Your task to perform on an android device: delete a single message in the gmail app Image 0: 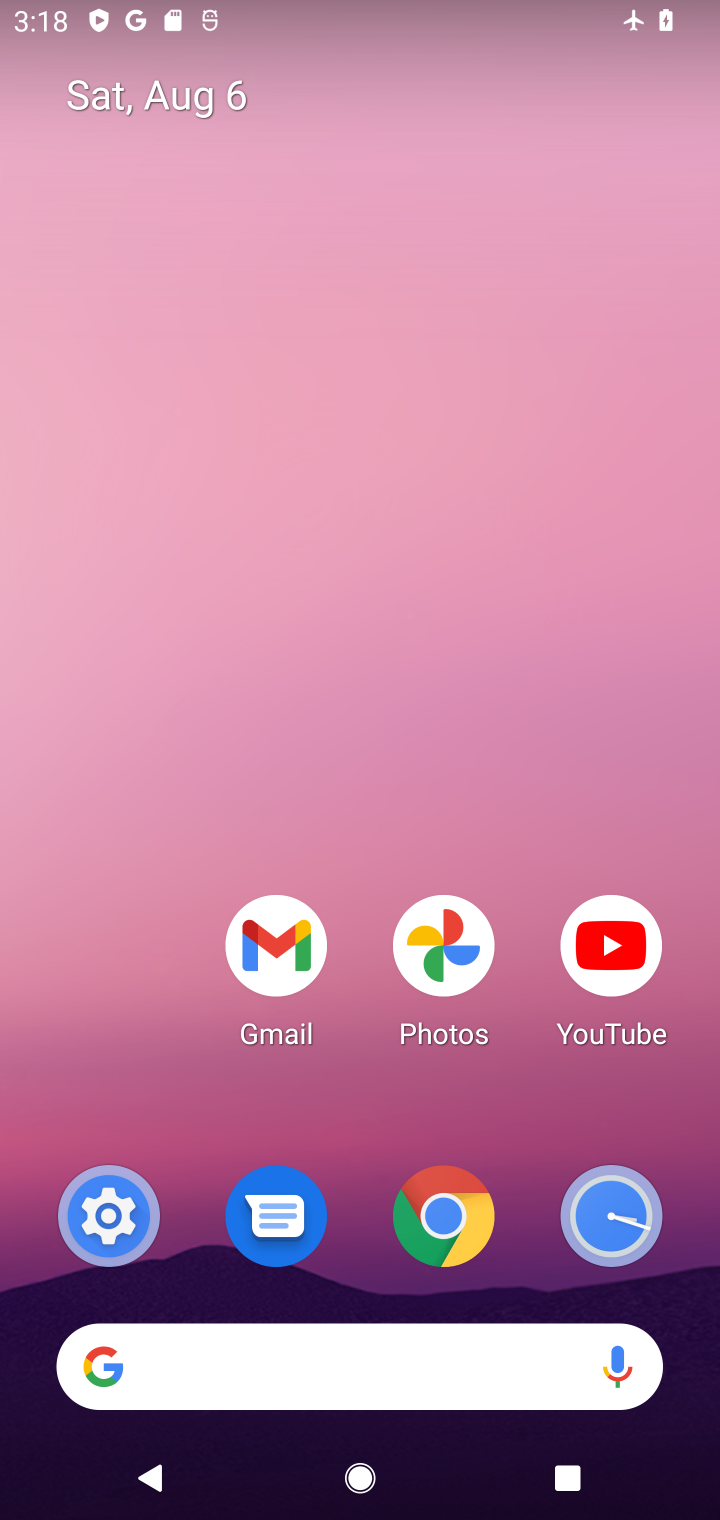
Step 0: drag from (543, 1164) to (507, 311)
Your task to perform on an android device: delete a single message in the gmail app Image 1: 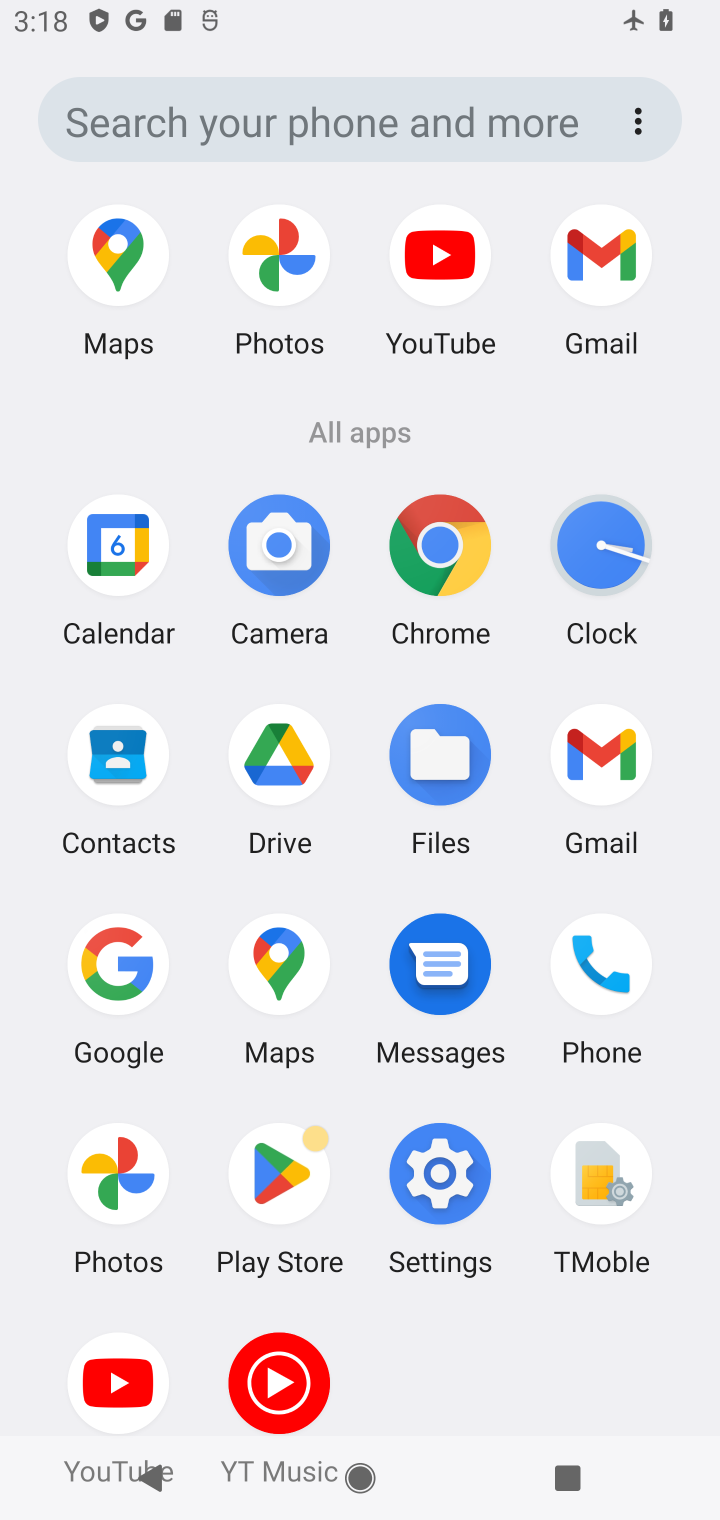
Step 1: click (591, 762)
Your task to perform on an android device: delete a single message in the gmail app Image 2: 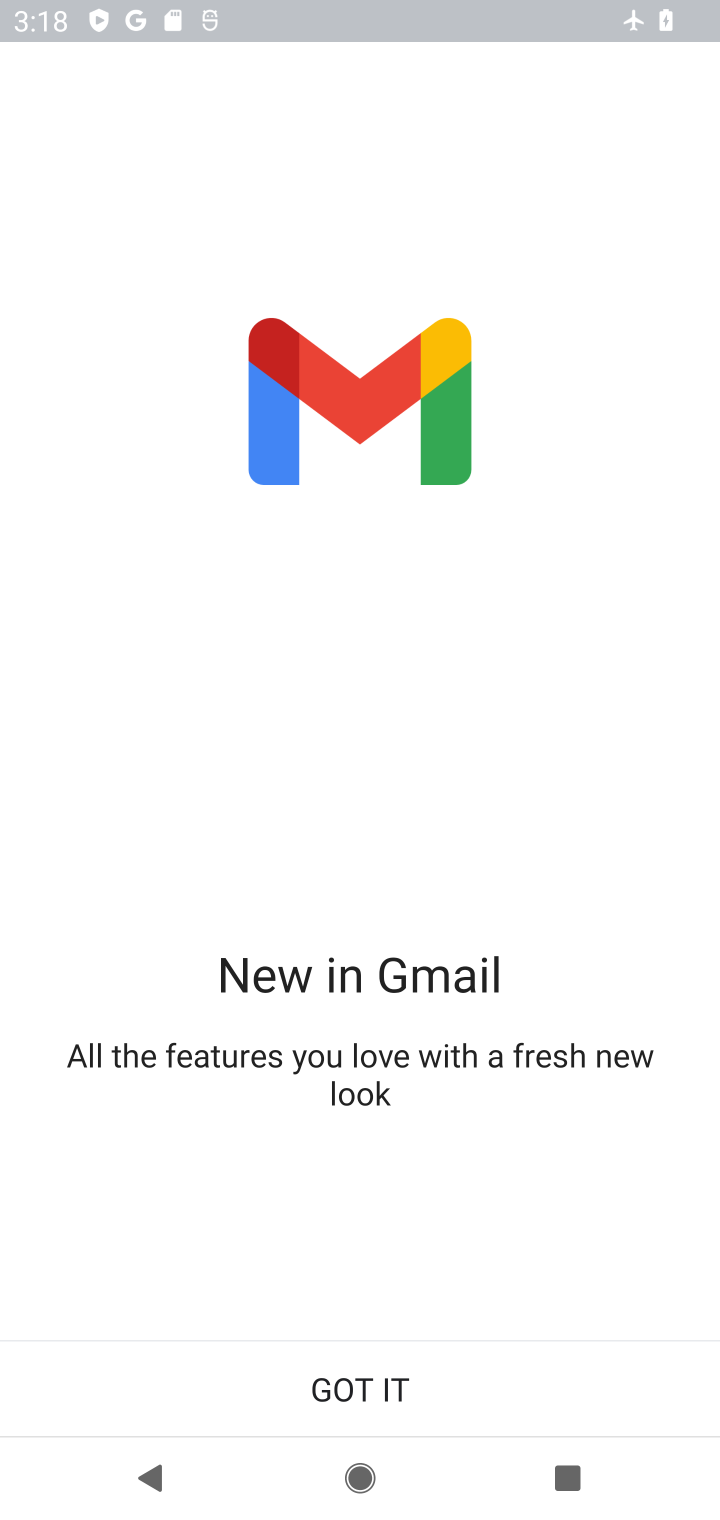
Step 2: click (348, 1415)
Your task to perform on an android device: delete a single message in the gmail app Image 3: 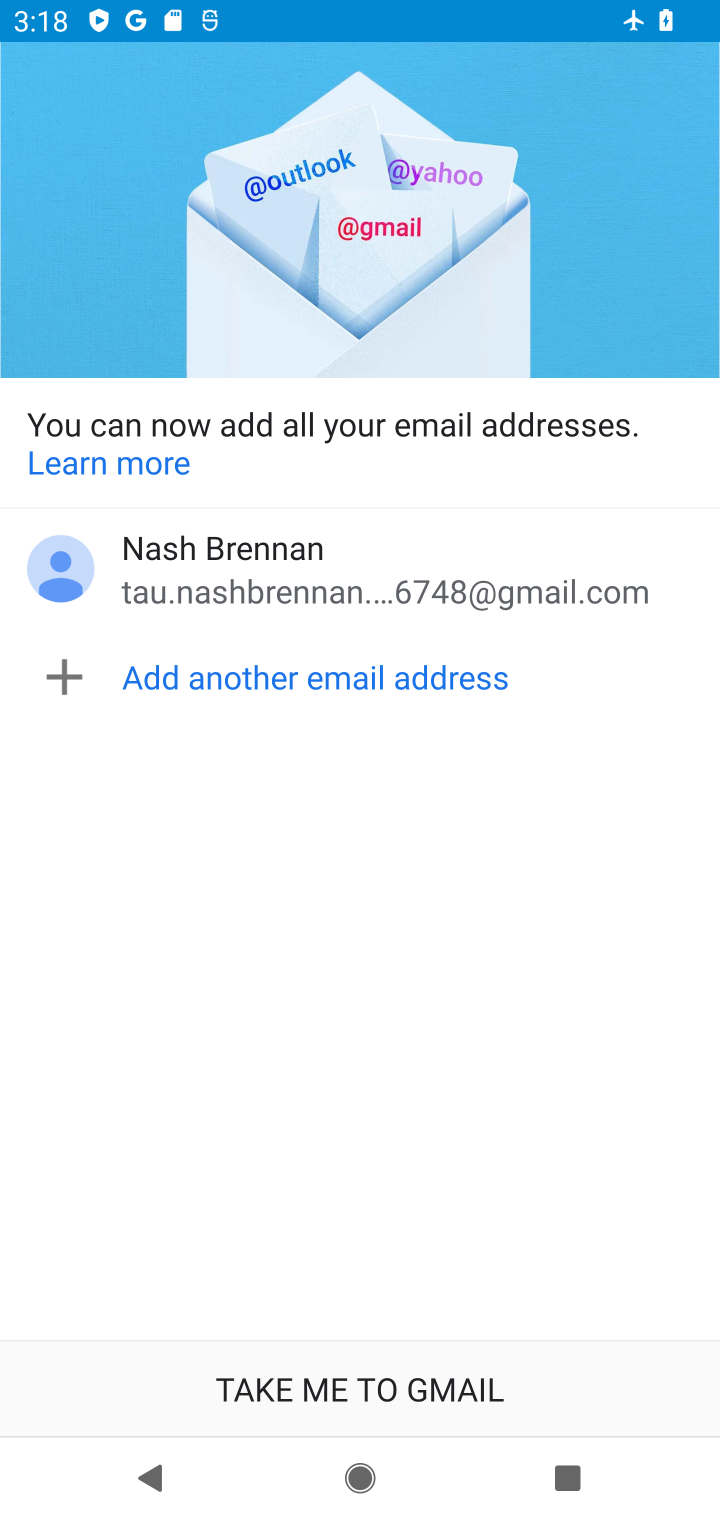
Step 3: click (420, 1409)
Your task to perform on an android device: delete a single message in the gmail app Image 4: 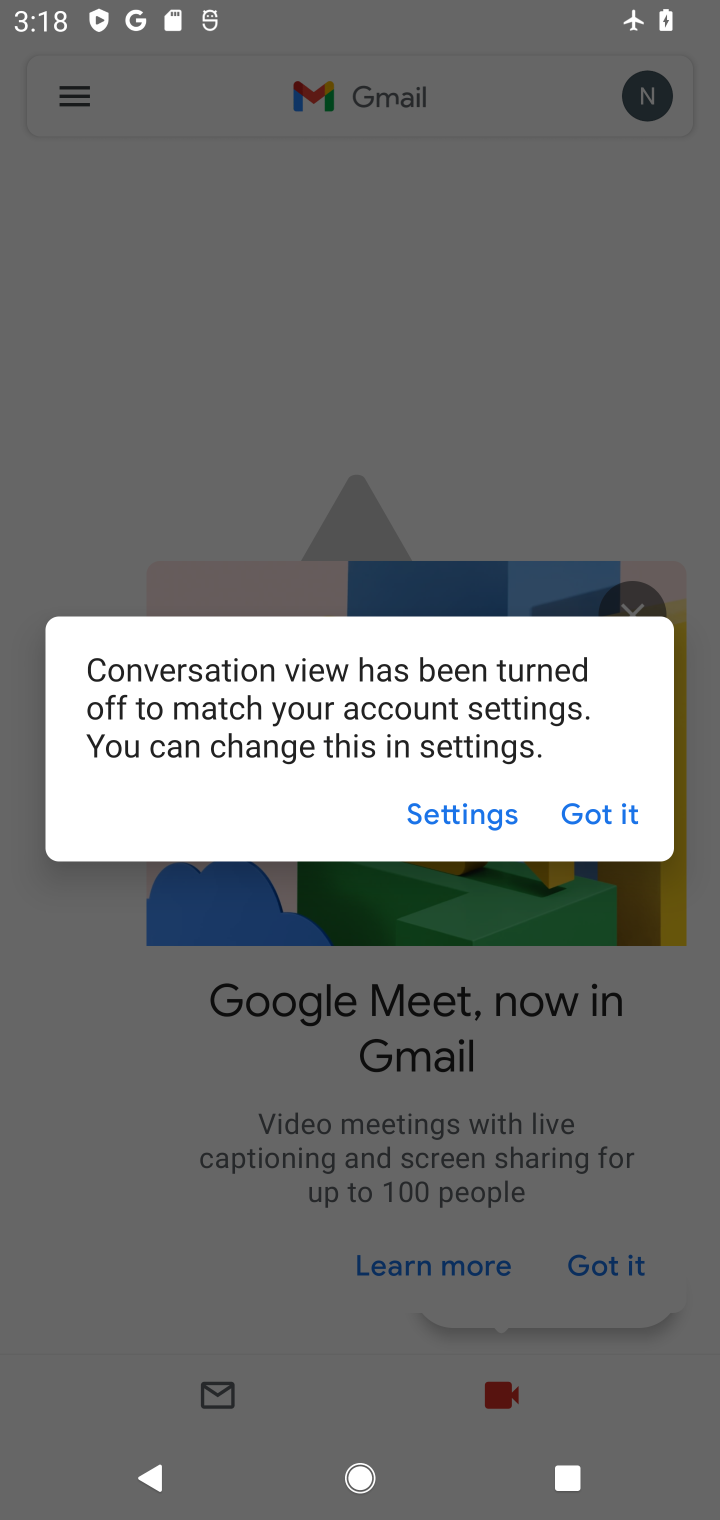
Step 4: click (560, 838)
Your task to perform on an android device: delete a single message in the gmail app Image 5: 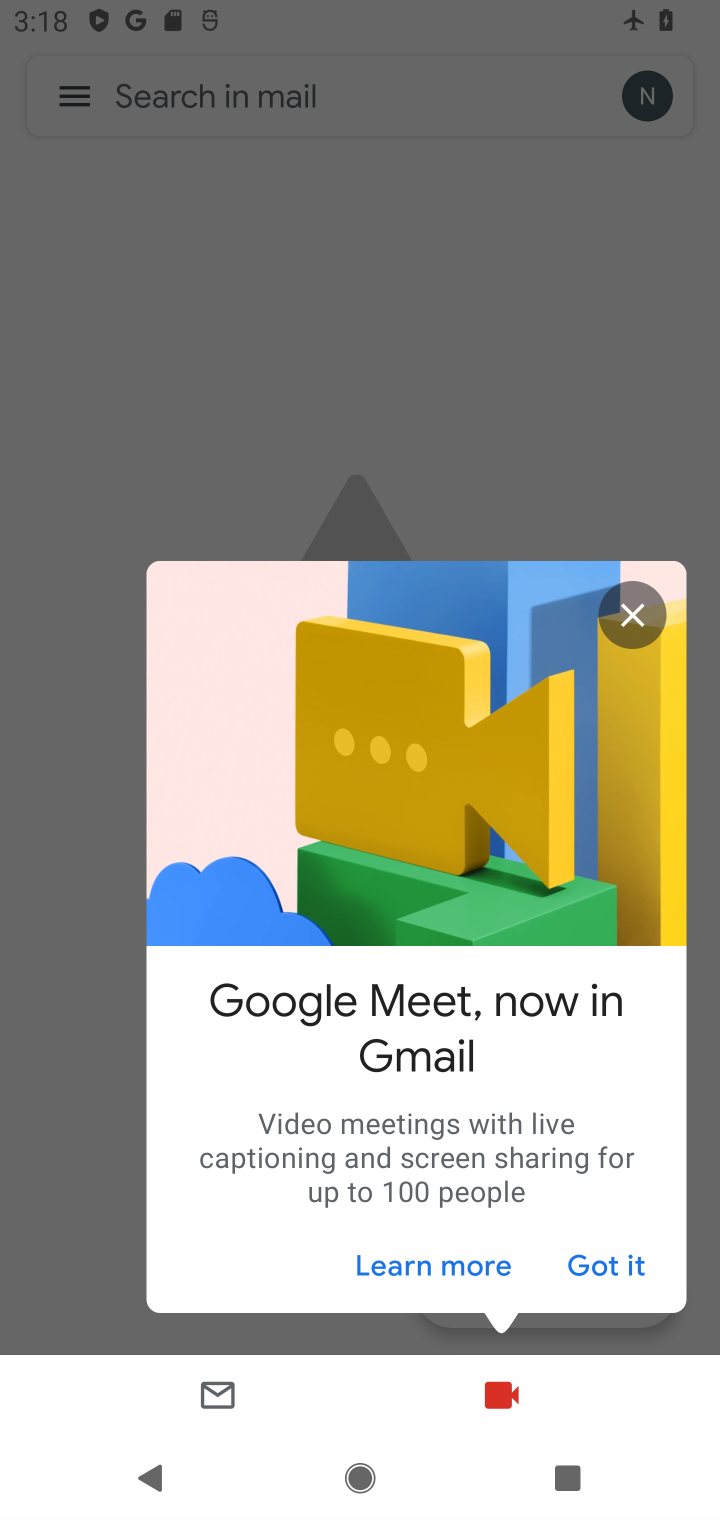
Step 5: click (623, 1265)
Your task to perform on an android device: delete a single message in the gmail app Image 6: 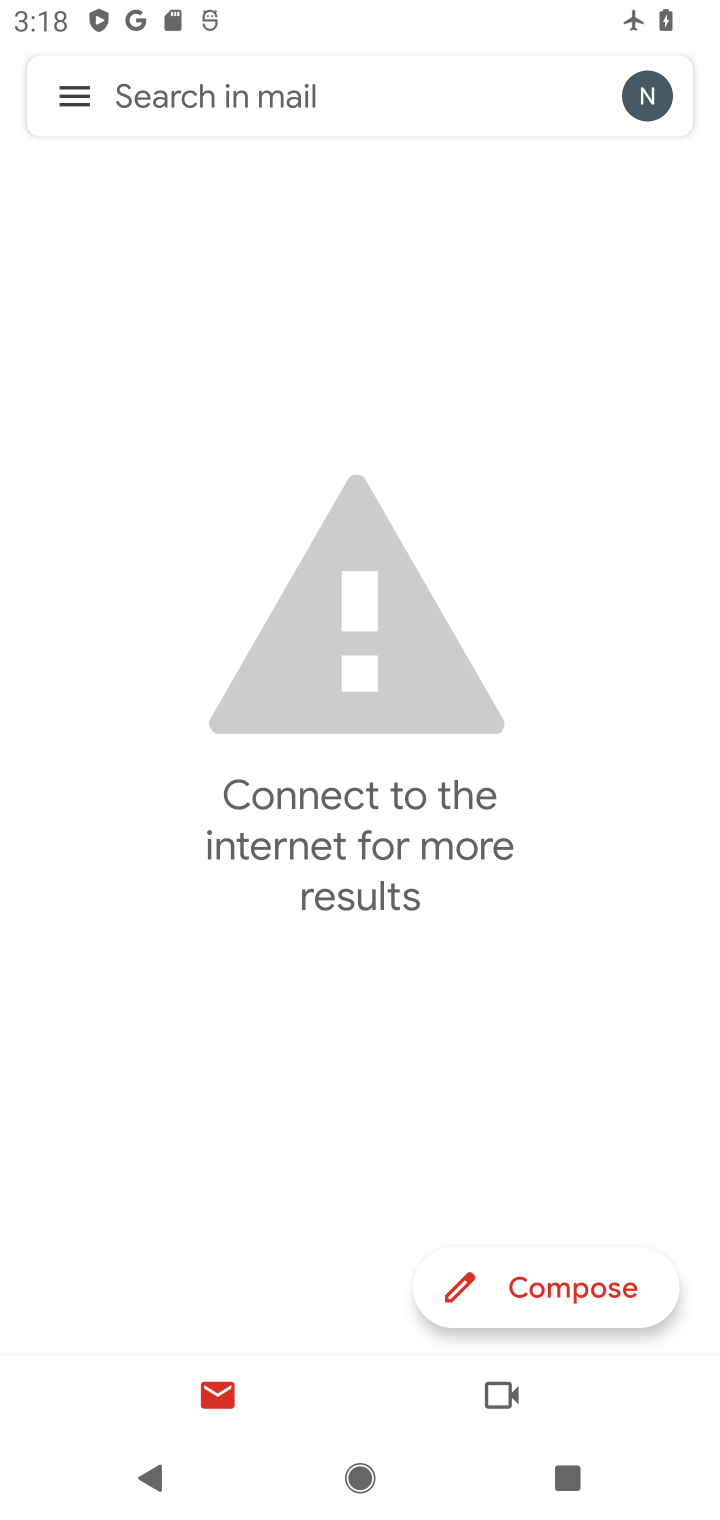
Step 6: click (85, 109)
Your task to perform on an android device: delete a single message in the gmail app Image 7: 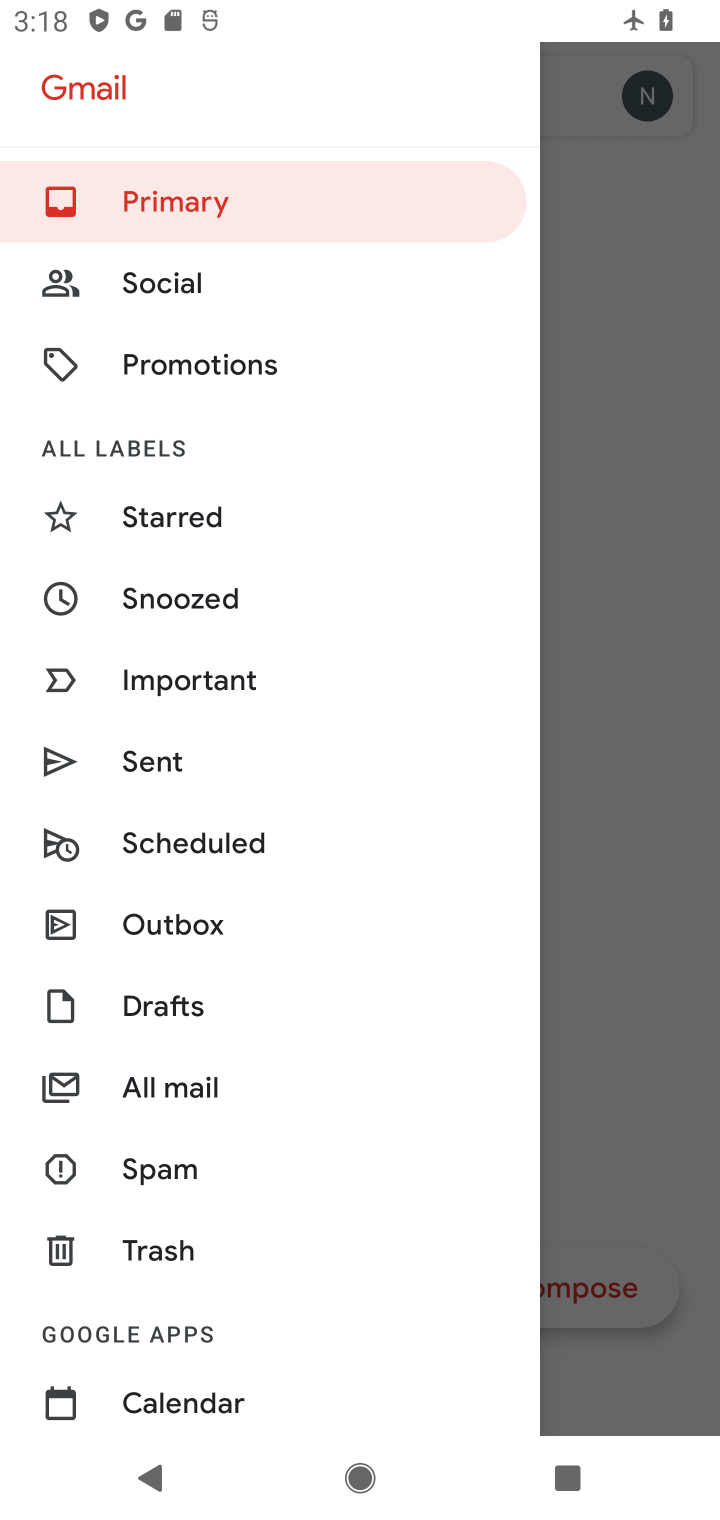
Step 7: click (160, 1099)
Your task to perform on an android device: delete a single message in the gmail app Image 8: 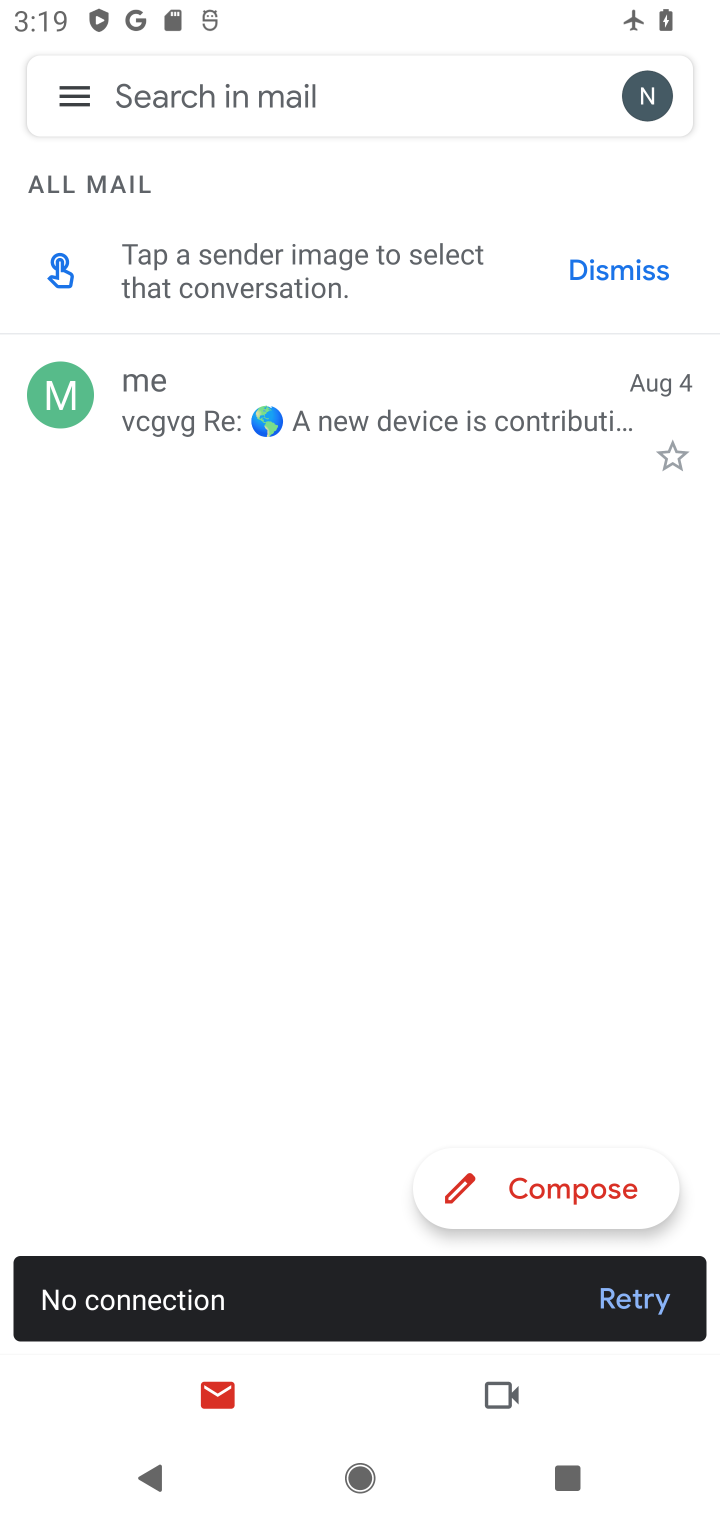
Step 8: click (334, 415)
Your task to perform on an android device: delete a single message in the gmail app Image 9: 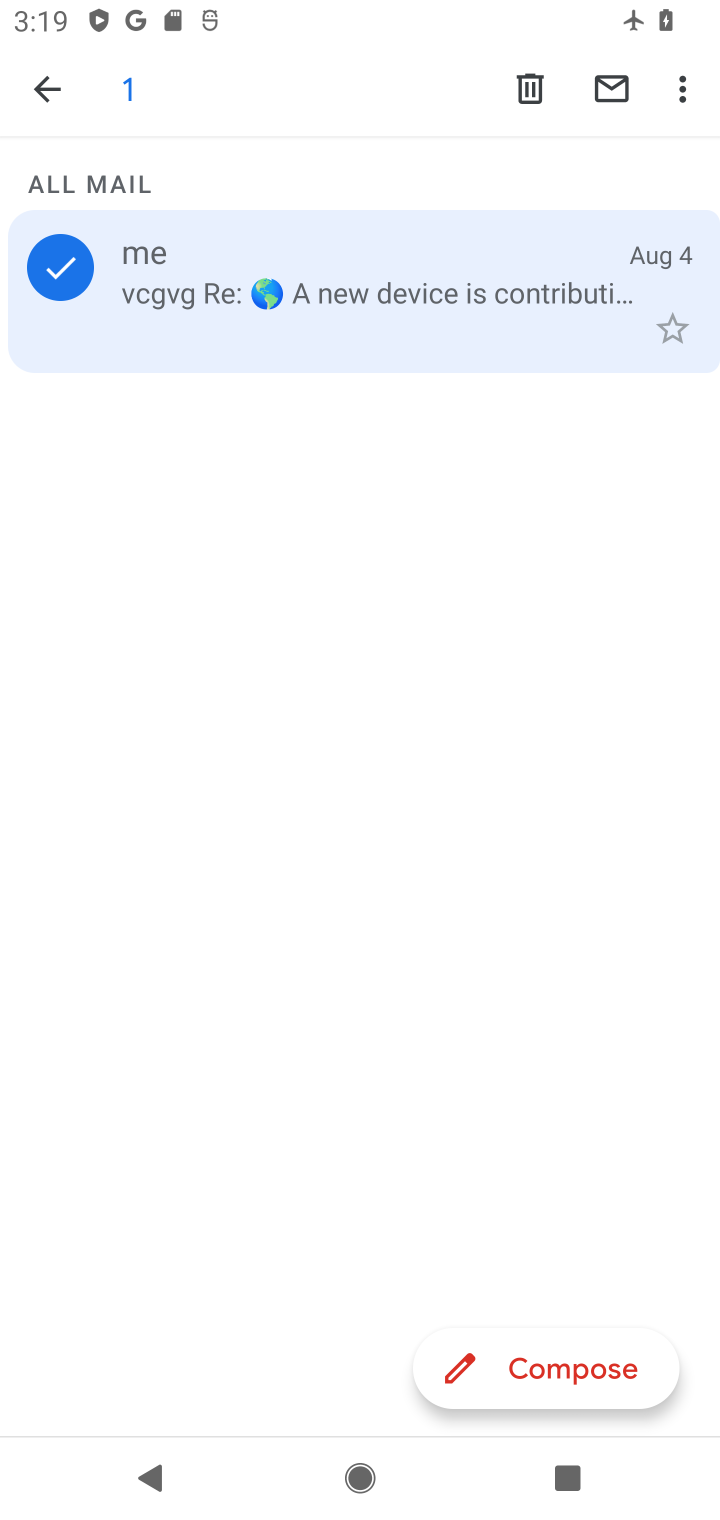
Step 9: click (520, 100)
Your task to perform on an android device: delete a single message in the gmail app Image 10: 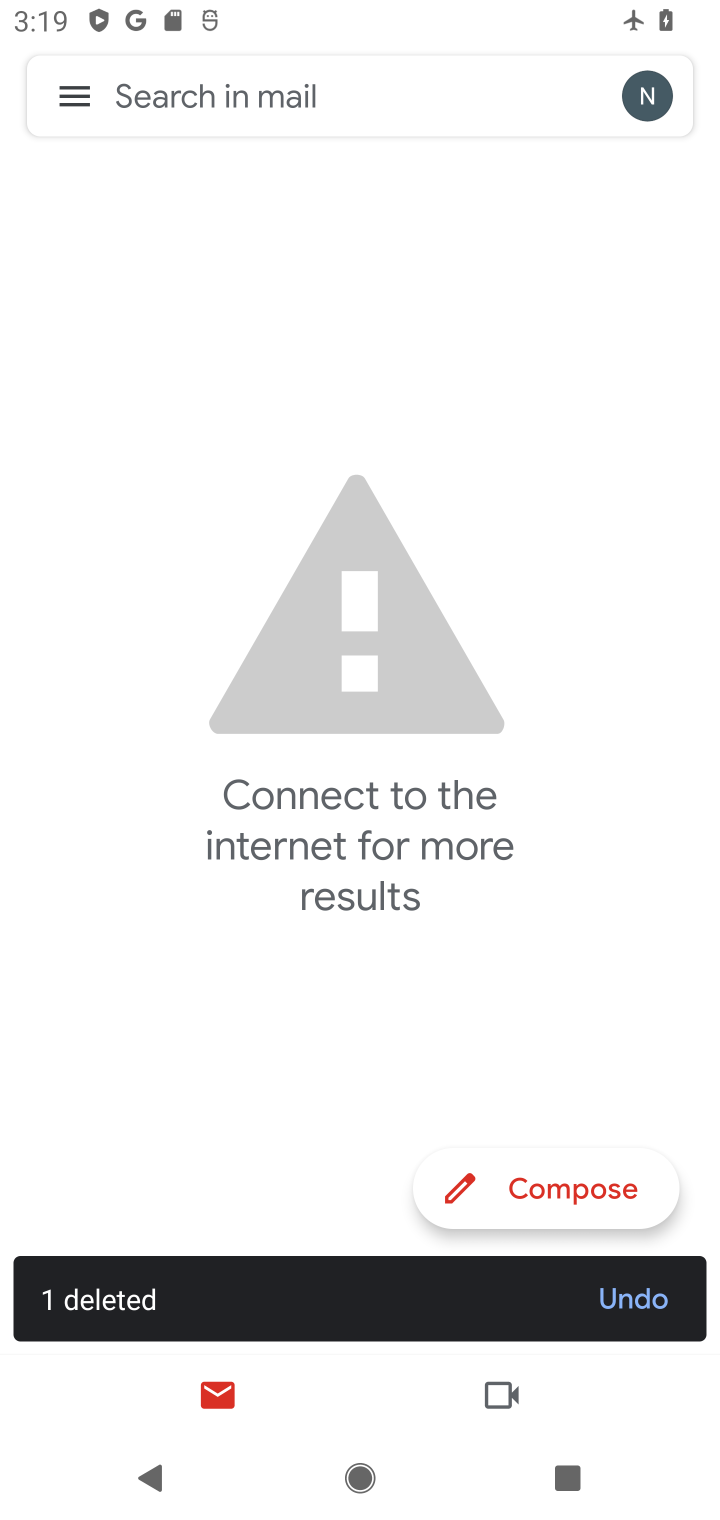
Step 10: task complete